Your task to perform on an android device: Check the news Image 0: 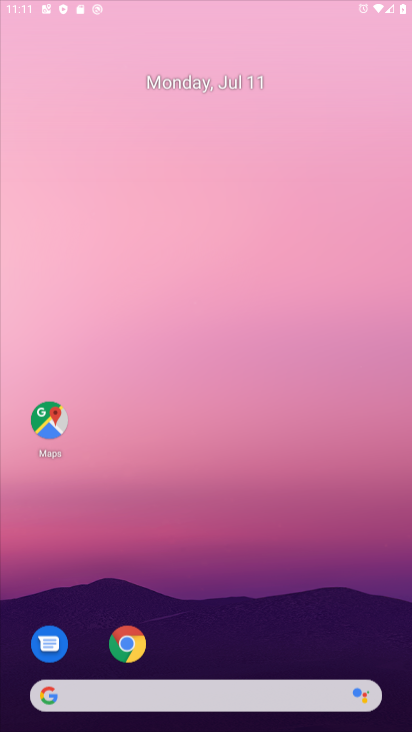
Step 0: press home button
Your task to perform on an android device: Check the news Image 1: 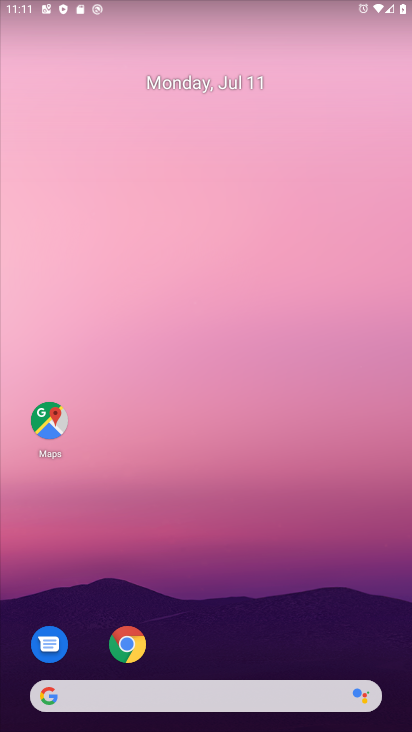
Step 1: task complete